Your task to perform on an android device: Turn off the flashlight Image 0: 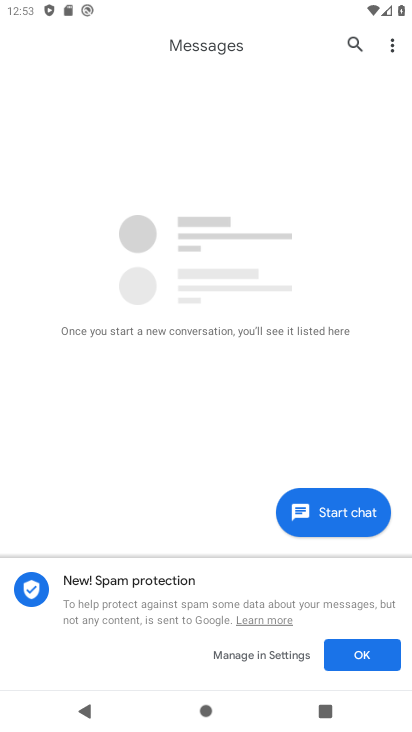
Step 0: press back button
Your task to perform on an android device: Turn off the flashlight Image 1: 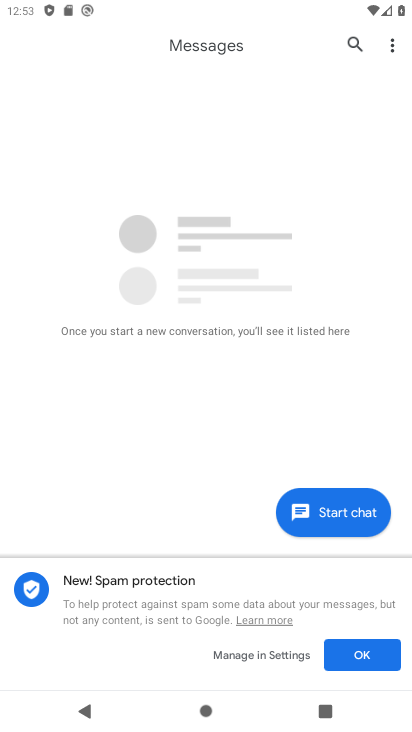
Step 1: press back button
Your task to perform on an android device: Turn off the flashlight Image 2: 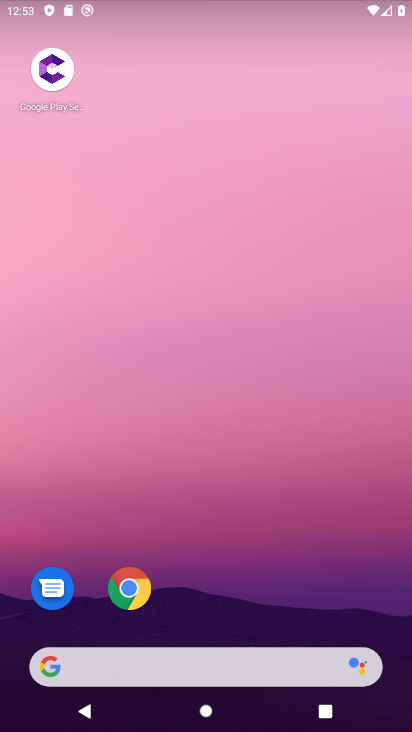
Step 2: press back button
Your task to perform on an android device: Turn off the flashlight Image 3: 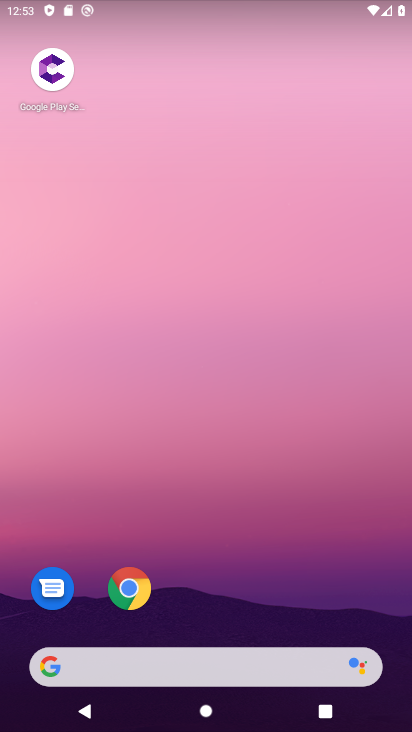
Step 3: click (260, 128)
Your task to perform on an android device: Turn off the flashlight Image 4: 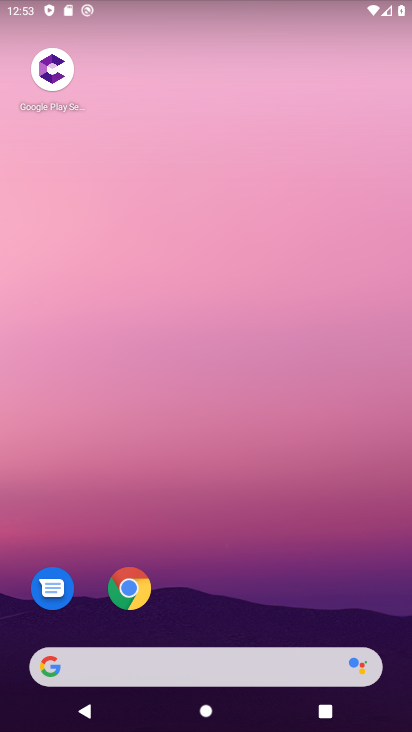
Step 4: task complete